Your task to perform on an android device: Open the calendar and show me this week's events Image 0: 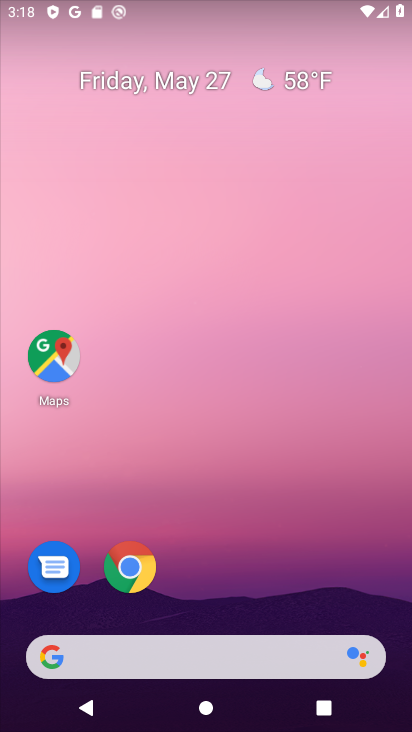
Step 0: press home button
Your task to perform on an android device: Open the calendar and show me this week's events Image 1: 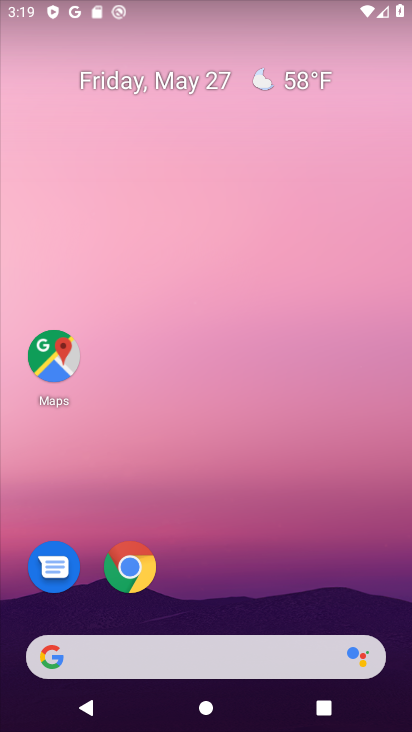
Step 1: drag from (214, 612) to (261, 113)
Your task to perform on an android device: Open the calendar and show me this week's events Image 2: 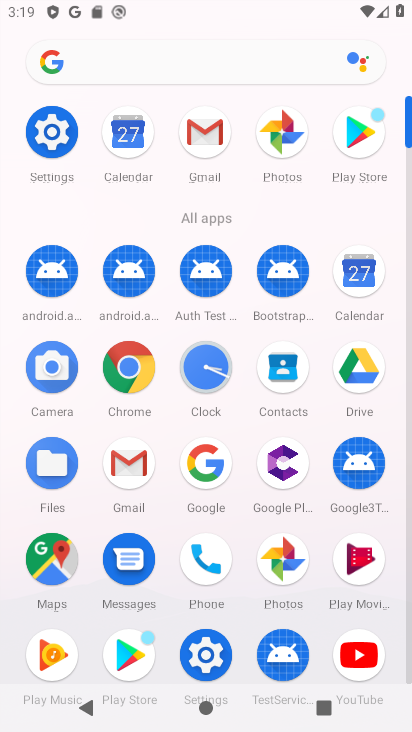
Step 2: click (132, 132)
Your task to perform on an android device: Open the calendar and show me this week's events Image 3: 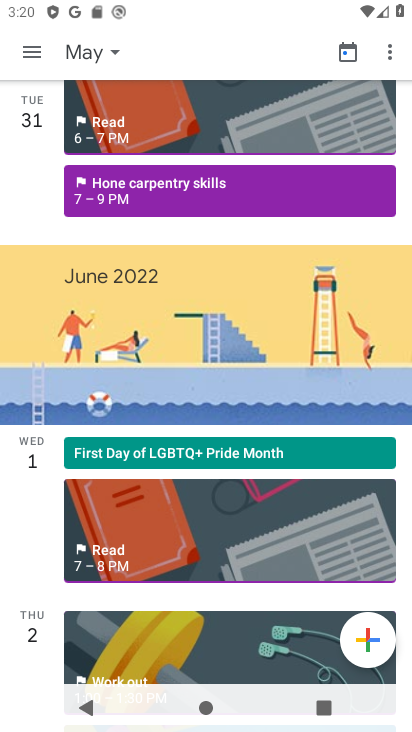
Step 3: click (33, 53)
Your task to perform on an android device: Open the calendar and show me this week's events Image 4: 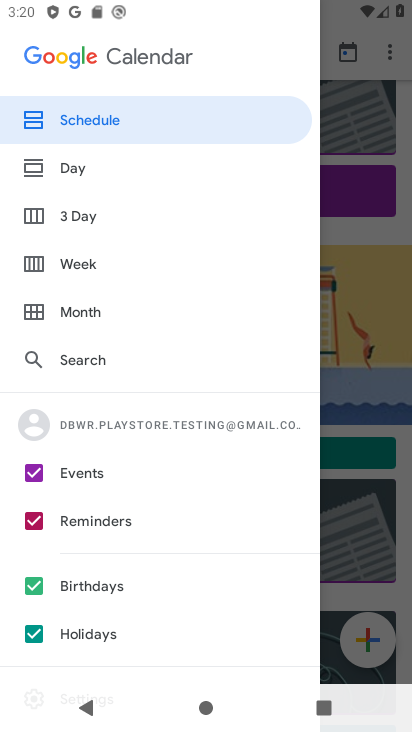
Step 4: click (47, 261)
Your task to perform on an android device: Open the calendar and show me this week's events Image 5: 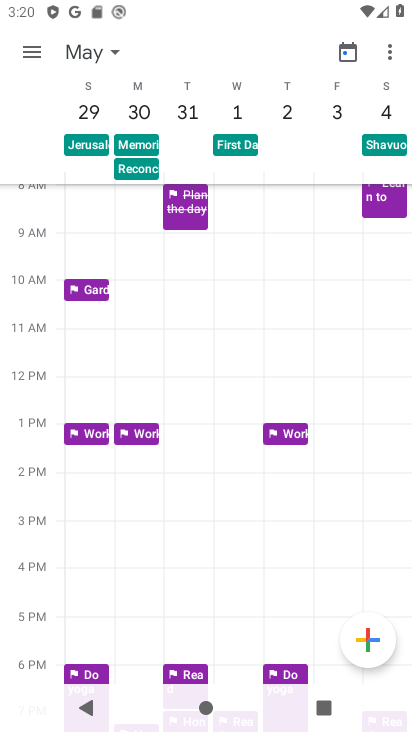
Step 5: drag from (99, 106) to (411, 104)
Your task to perform on an android device: Open the calendar and show me this week's events Image 6: 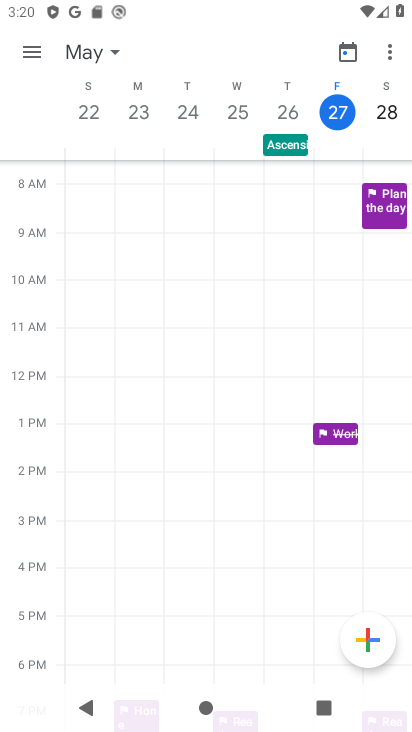
Step 6: click (337, 110)
Your task to perform on an android device: Open the calendar and show me this week's events Image 7: 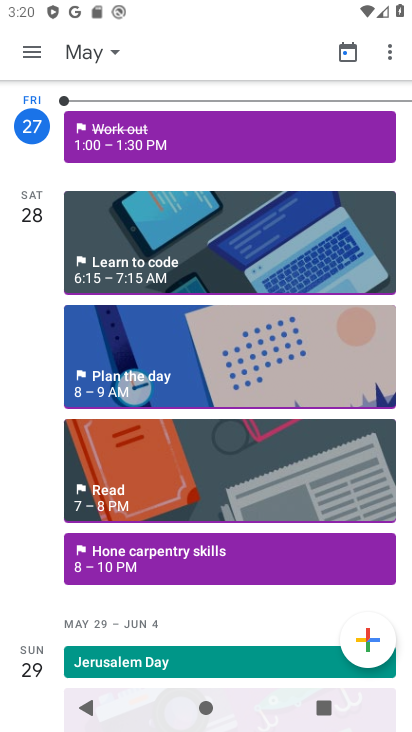
Step 7: task complete